Your task to perform on an android device: add a contact Image 0: 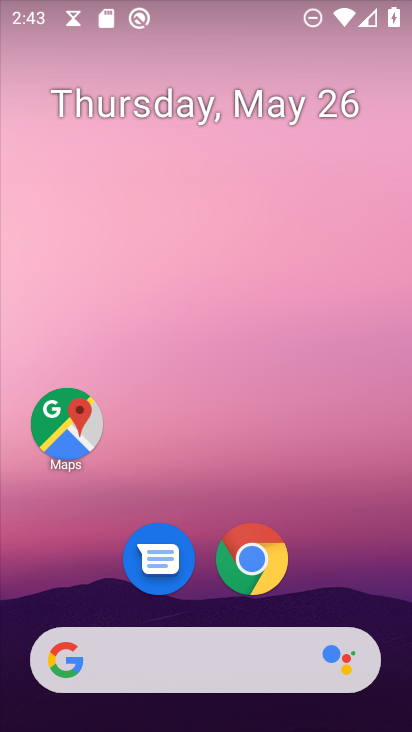
Step 0: drag from (244, 656) to (371, 214)
Your task to perform on an android device: add a contact Image 1: 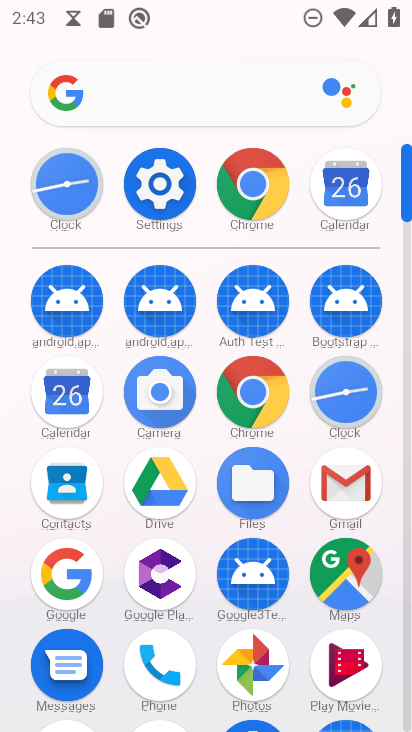
Step 1: click (66, 486)
Your task to perform on an android device: add a contact Image 2: 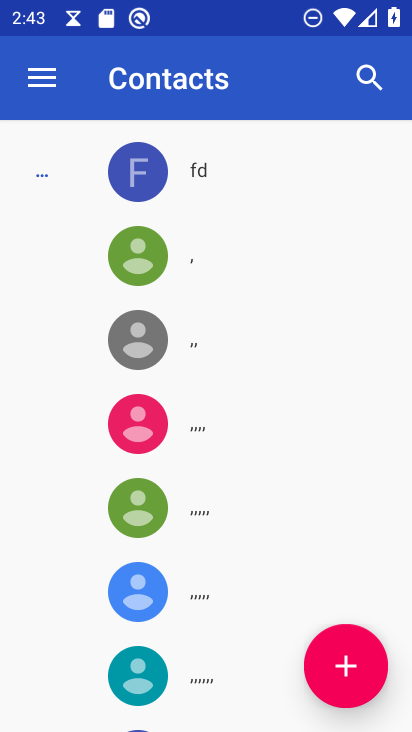
Step 2: click (342, 672)
Your task to perform on an android device: add a contact Image 3: 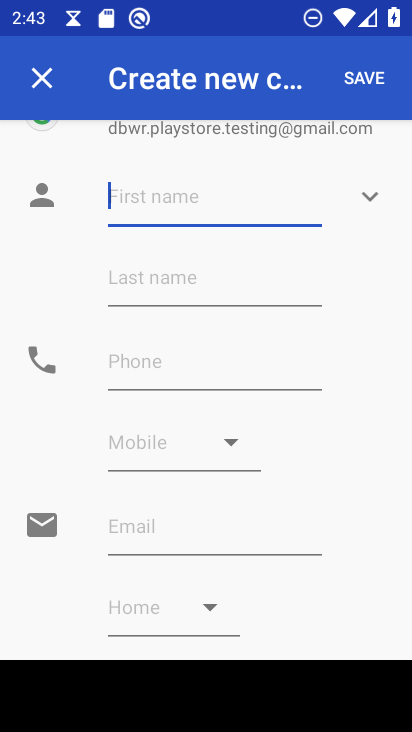
Step 3: click (182, 167)
Your task to perform on an android device: add a contact Image 4: 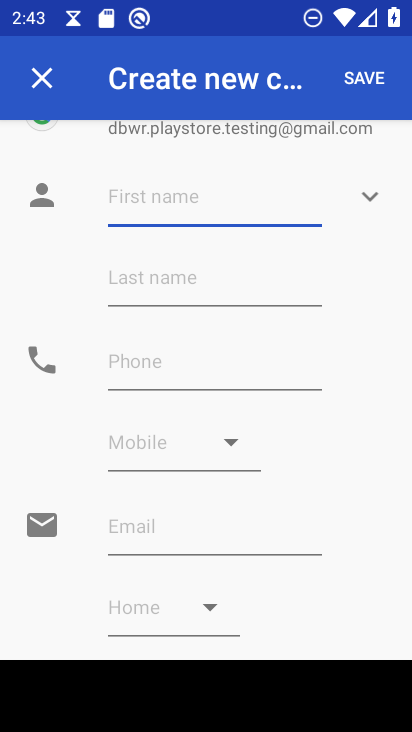
Step 4: type "kjiop"
Your task to perform on an android device: add a contact Image 5: 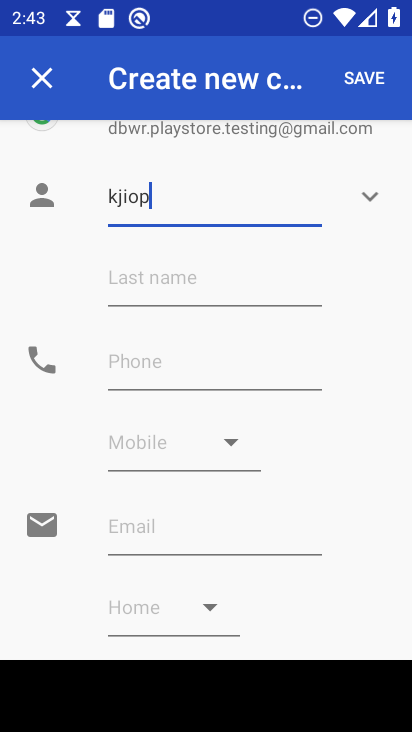
Step 5: click (116, 362)
Your task to perform on an android device: add a contact Image 6: 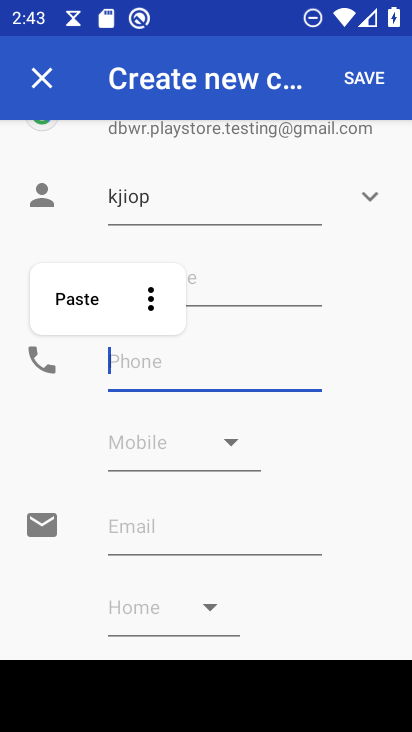
Step 6: type "78666"
Your task to perform on an android device: add a contact Image 7: 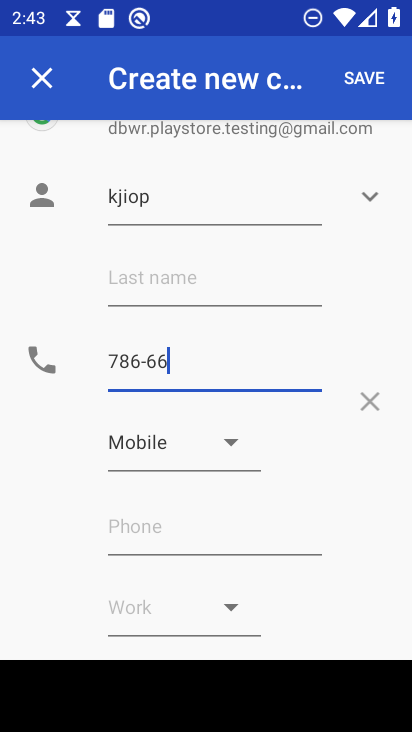
Step 7: task complete